Your task to perform on an android device: stop showing notifications on the lock screen Image 0: 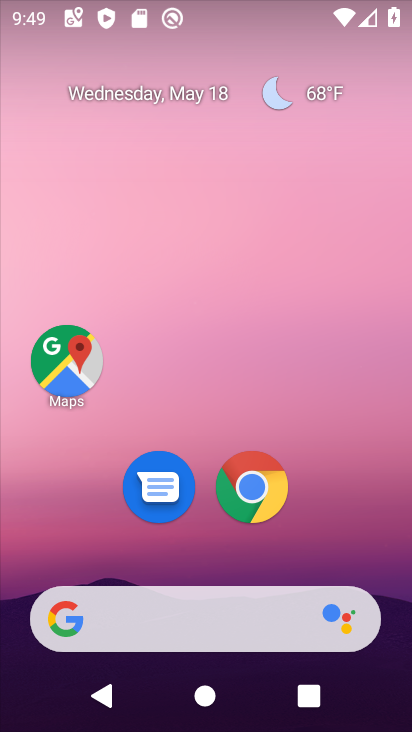
Step 0: drag from (344, 377) to (332, 153)
Your task to perform on an android device: stop showing notifications on the lock screen Image 1: 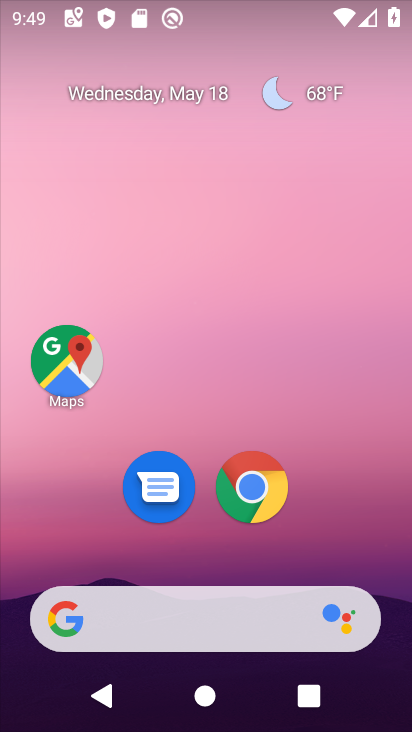
Step 1: drag from (339, 508) to (313, 180)
Your task to perform on an android device: stop showing notifications on the lock screen Image 2: 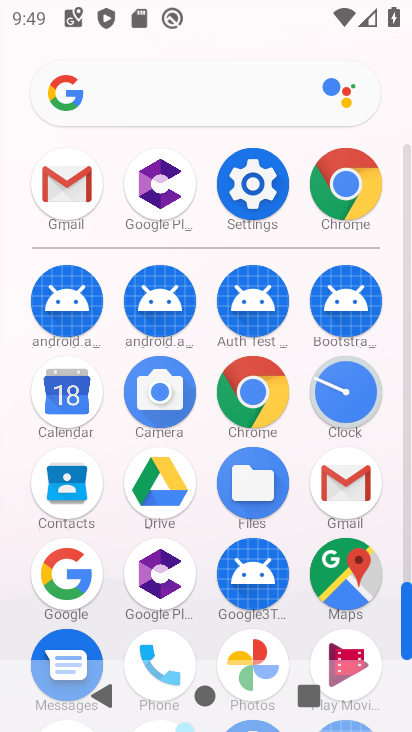
Step 2: click (249, 202)
Your task to perform on an android device: stop showing notifications on the lock screen Image 3: 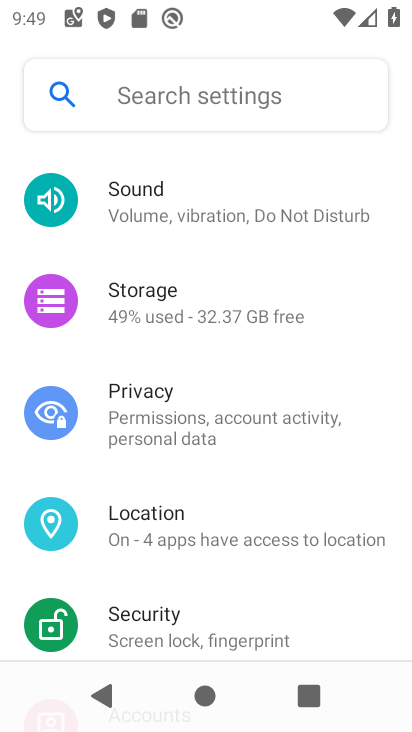
Step 3: drag from (277, 304) to (296, 532)
Your task to perform on an android device: stop showing notifications on the lock screen Image 4: 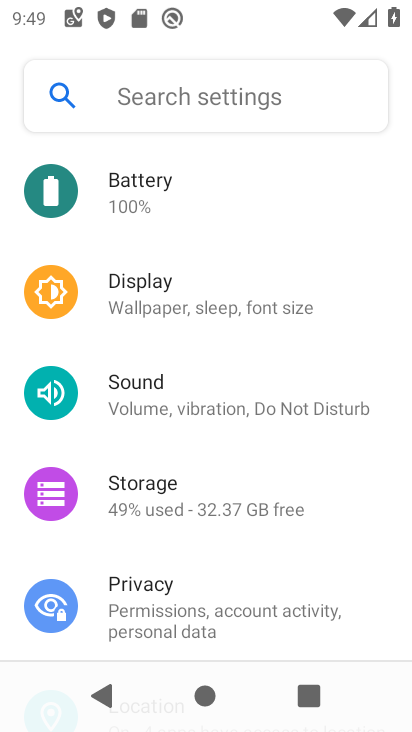
Step 4: drag from (242, 240) to (274, 477)
Your task to perform on an android device: stop showing notifications on the lock screen Image 5: 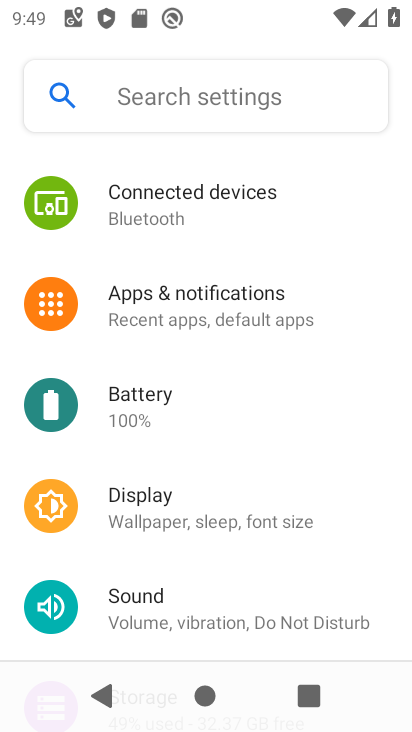
Step 5: click (244, 300)
Your task to perform on an android device: stop showing notifications on the lock screen Image 6: 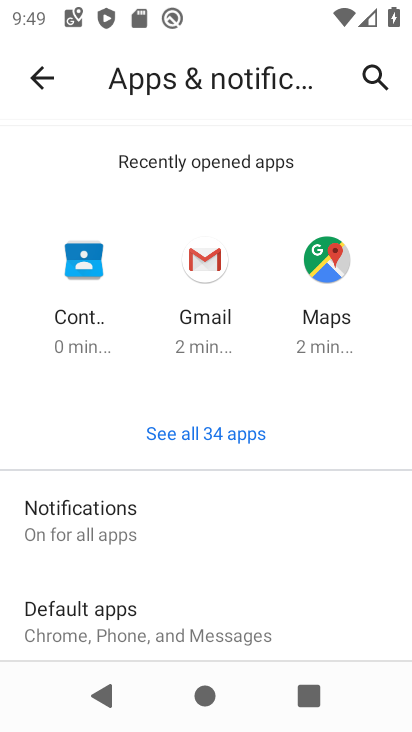
Step 6: click (210, 515)
Your task to perform on an android device: stop showing notifications on the lock screen Image 7: 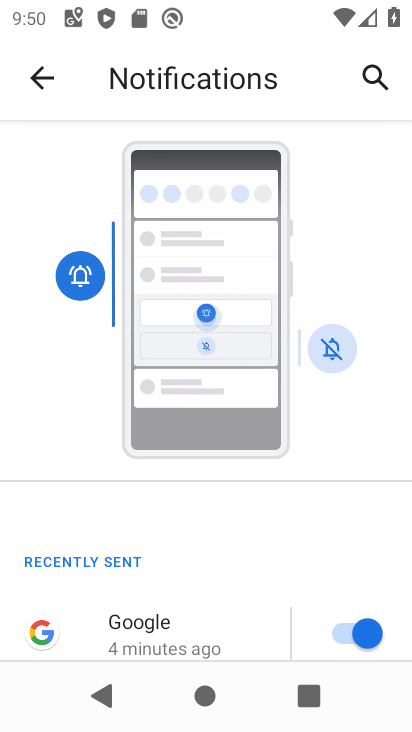
Step 7: drag from (222, 579) to (273, 261)
Your task to perform on an android device: stop showing notifications on the lock screen Image 8: 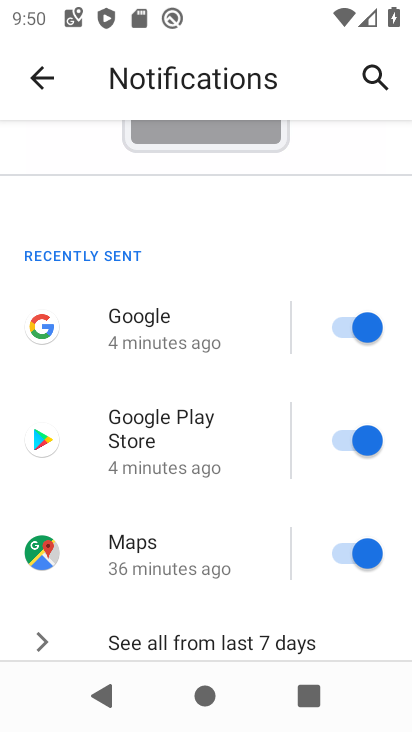
Step 8: drag from (249, 588) to (268, 237)
Your task to perform on an android device: stop showing notifications on the lock screen Image 9: 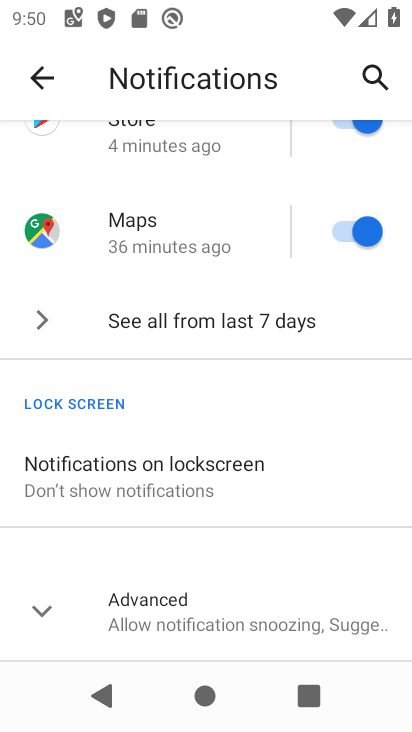
Step 9: click (236, 457)
Your task to perform on an android device: stop showing notifications on the lock screen Image 10: 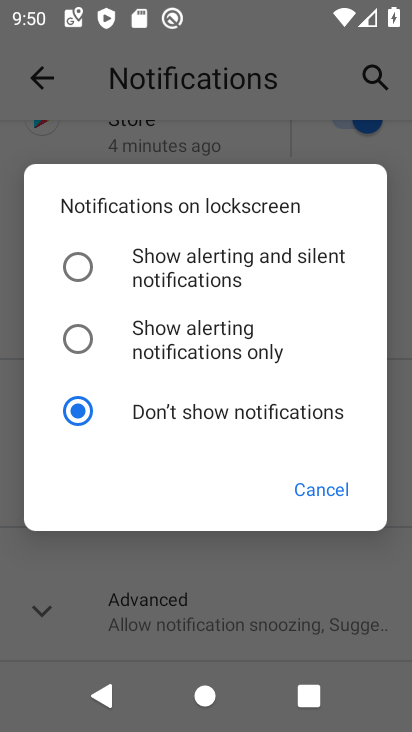
Step 10: task complete